Your task to perform on an android device: turn off notifications settings in the gmail app Image 0: 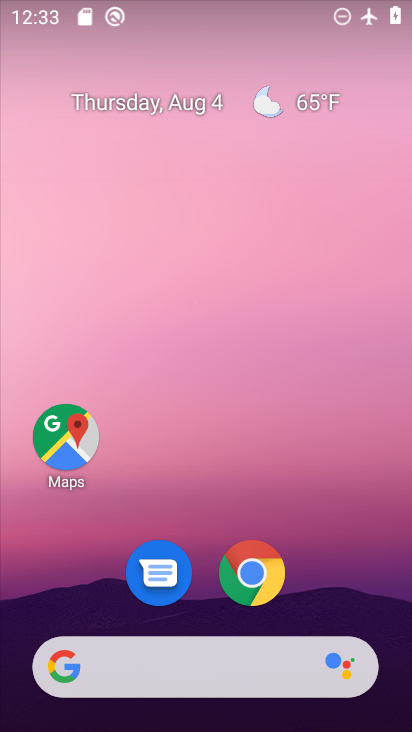
Step 0: drag from (346, 580) to (282, 114)
Your task to perform on an android device: turn off notifications settings in the gmail app Image 1: 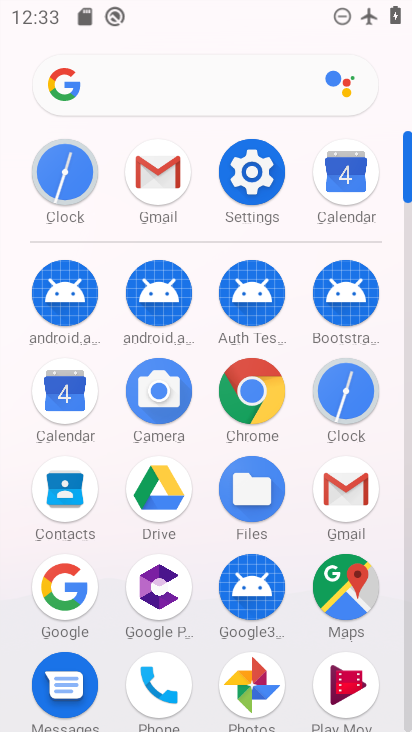
Step 1: click (348, 492)
Your task to perform on an android device: turn off notifications settings in the gmail app Image 2: 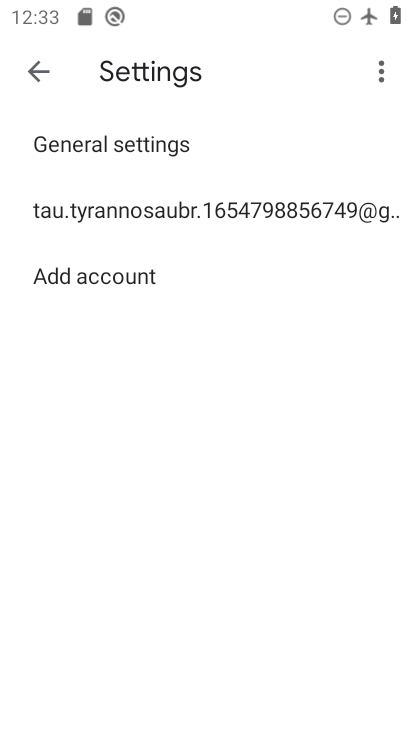
Step 2: click (61, 213)
Your task to perform on an android device: turn off notifications settings in the gmail app Image 3: 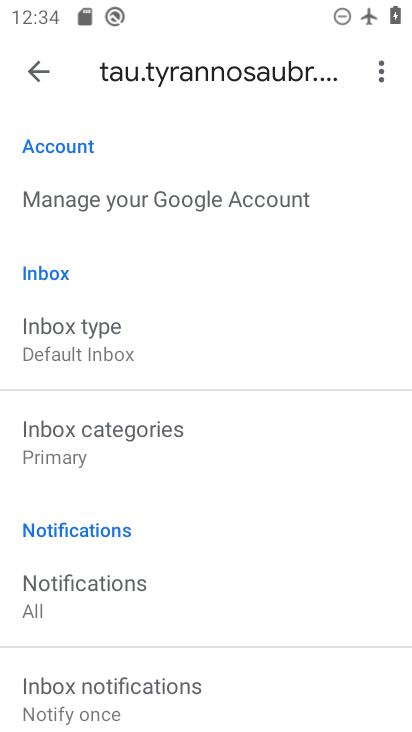
Step 3: drag from (257, 580) to (284, 316)
Your task to perform on an android device: turn off notifications settings in the gmail app Image 4: 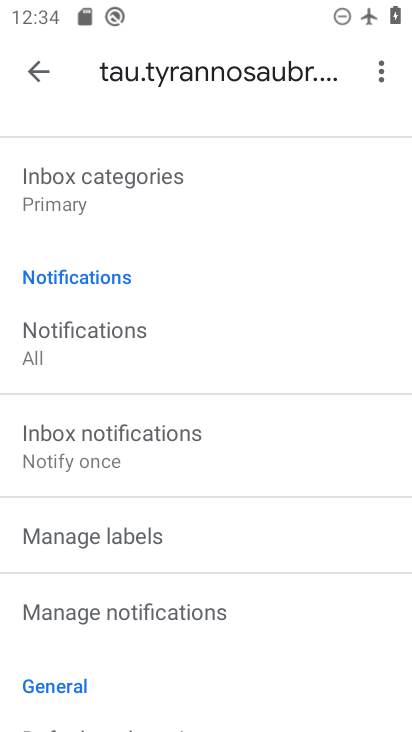
Step 4: click (150, 621)
Your task to perform on an android device: turn off notifications settings in the gmail app Image 5: 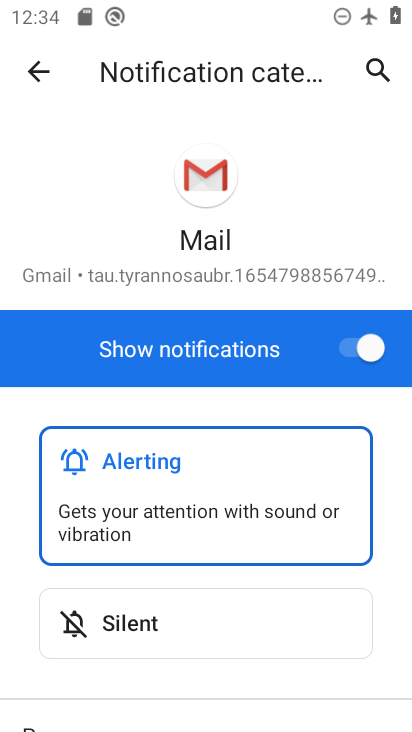
Step 5: click (319, 352)
Your task to perform on an android device: turn off notifications settings in the gmail app Image 6: 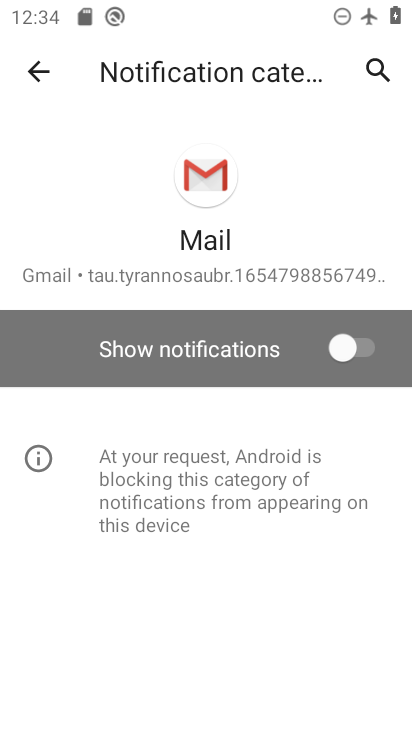
Step 6: task complete